Your task to perform on an android device: Open maps Image 0: 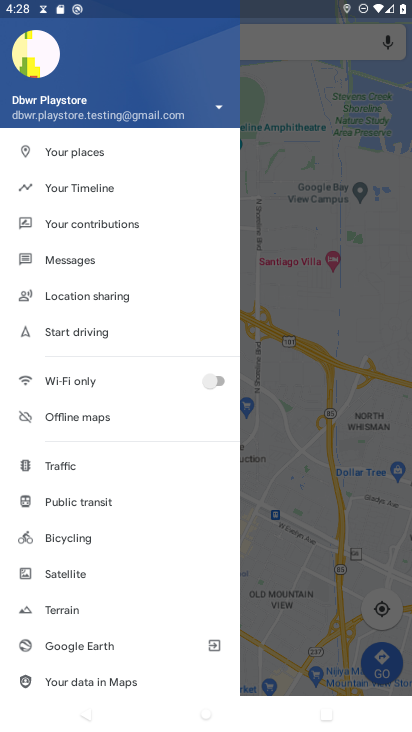
Step 0: press back button
Your task to perform on an android device: Open maps Image 1: 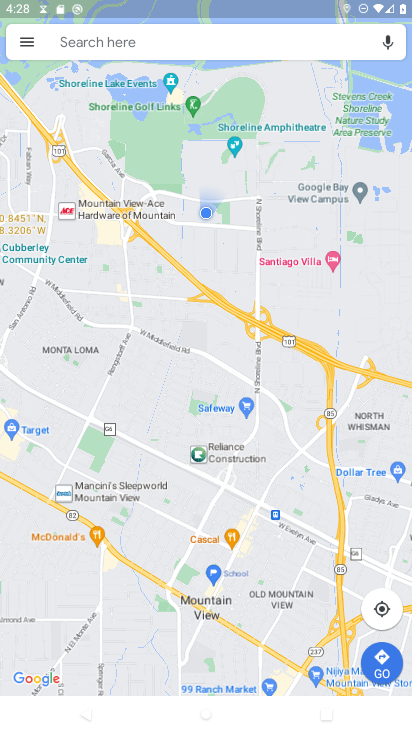
Step 1: task complete